Your task to perform on an android device: make emails show in primary in the gmail app Image 0: 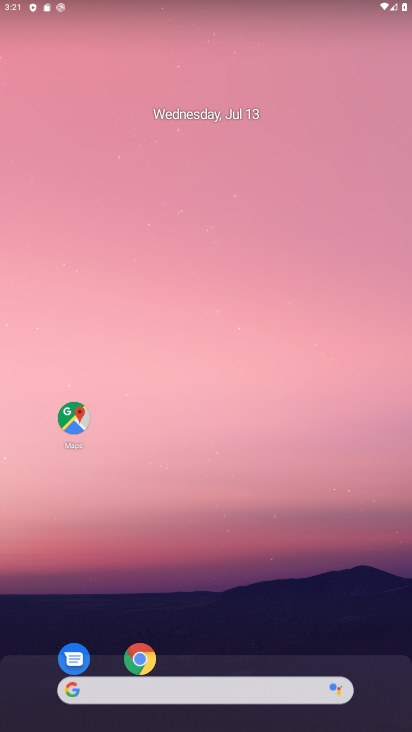
Step 0: drag from (279, 640) to (242, 93)
Your task to perform on an android device: make emails show in primary in the gmail app Image 1: 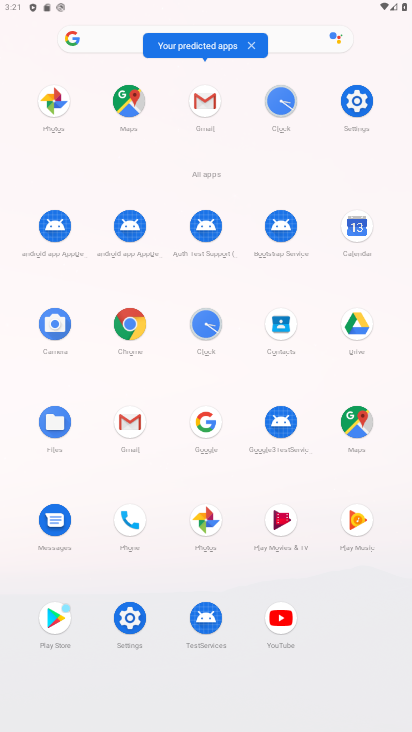
Step 1: click (206, 111)
Your task to perform on an android device: make emails show in primary in the gmail app Image 2: 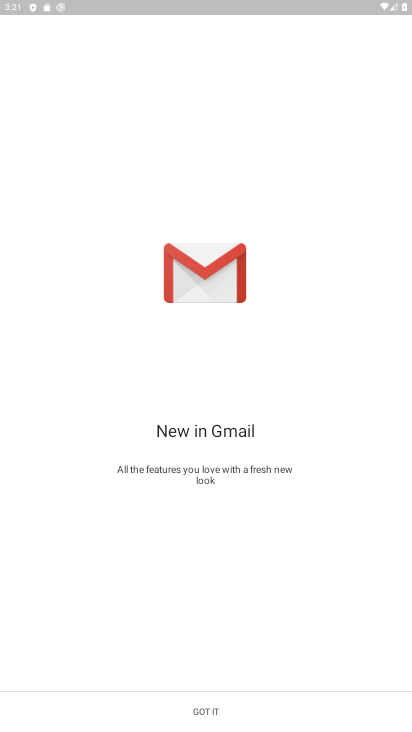
Step 2: click (209, 704)
Your task to perform on an android device: make emails show in primary in the gmail app Image 3: 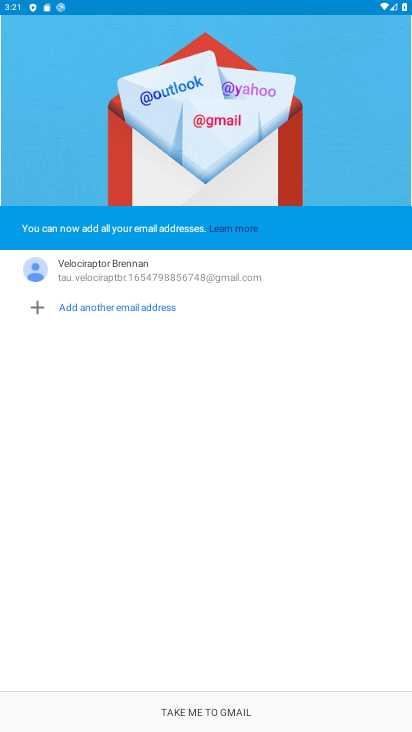
Step 3: click (217, 713)
Your task to perform on an android device: make emails show in primary in the gmail app Image 4: 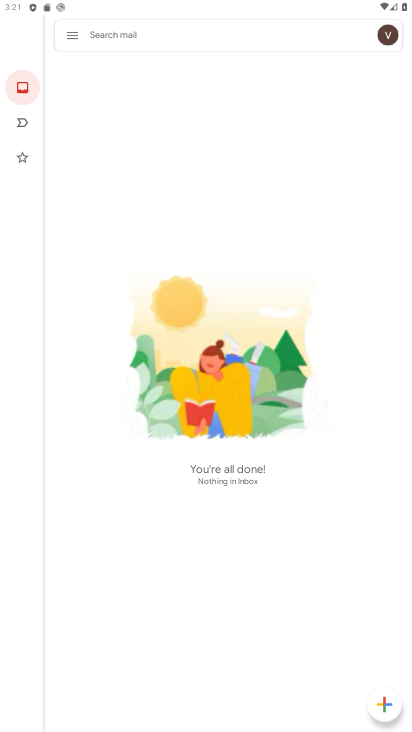
Step 4: click (73, 43)
Your task to perform on an android device: make emails show in primary in the gmail app Image 5: 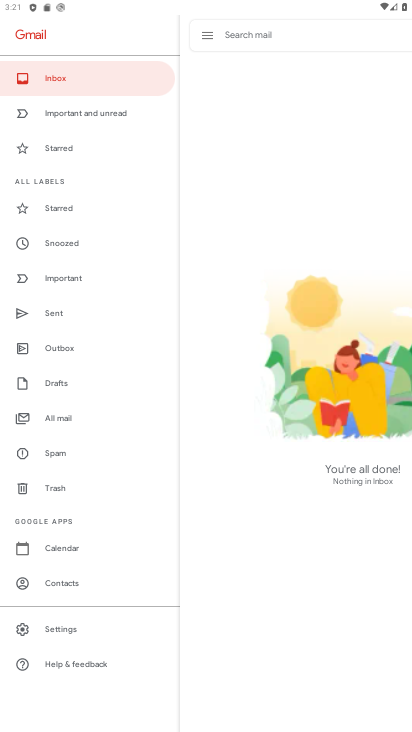
Step 5: click (63, 629)
Your task to perform on an android device: make emails show in primary in the gmail app Image 6: 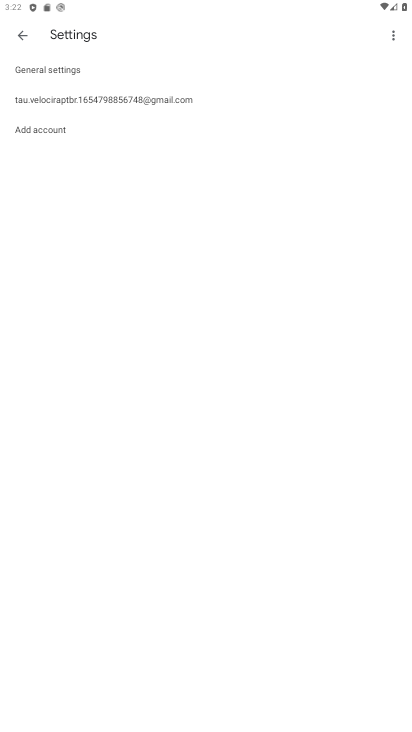
Step 6: click (179, 99)
Your task to perform on an android device: make emails show in primary in the gmail app Image 7: 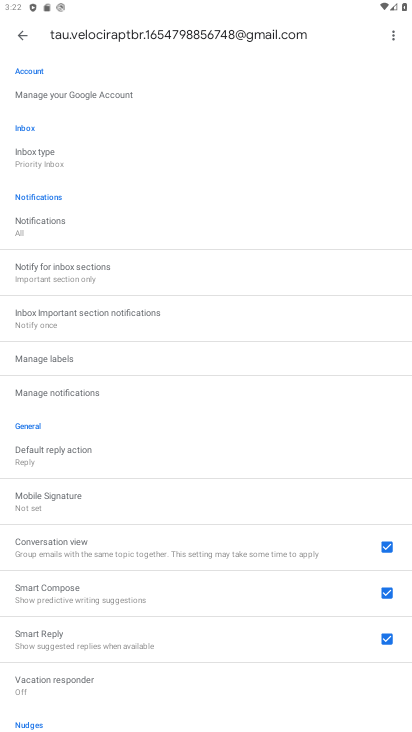
Step 7: click (114, 162)
Your task to perform on an android device: make emails show in primary in the gmail app Image 8: 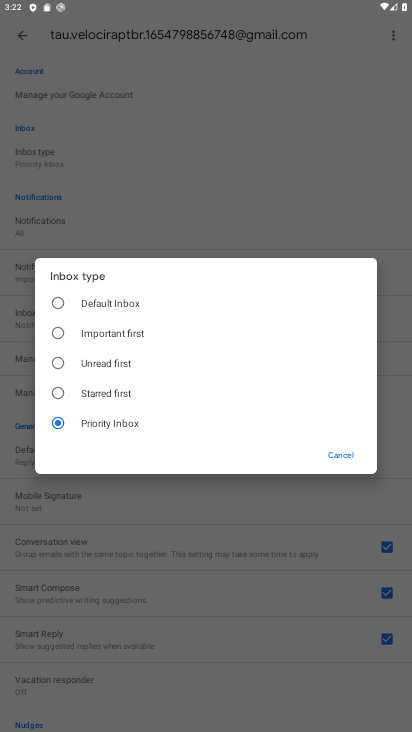
Step 8: click (131, 301)
Your task to perform on an android device: make emails show in primary in the gmail app Image 9: 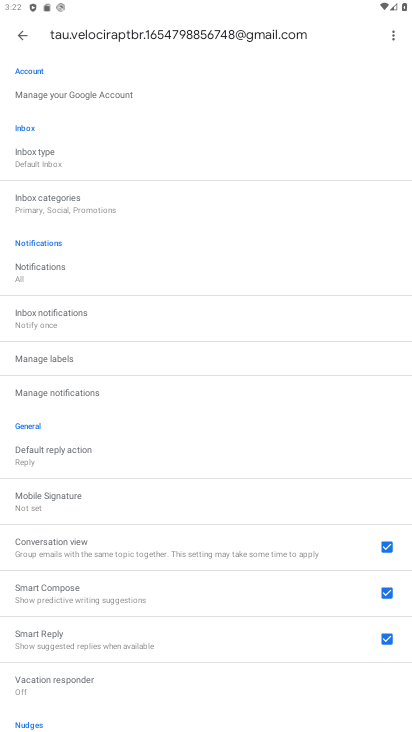
Step 9: task complete